Your task to perform on an android device: Do I have any events tomorrow? Image 0: 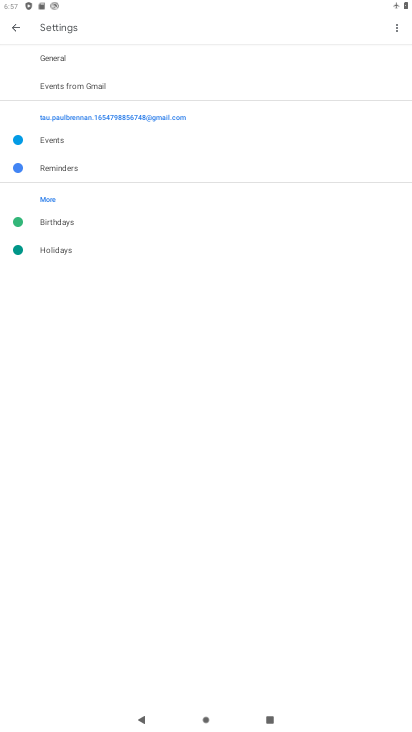
Step 0: press home button
Your task to perform on an android device: Do I have any events tomorrow? Image 1: 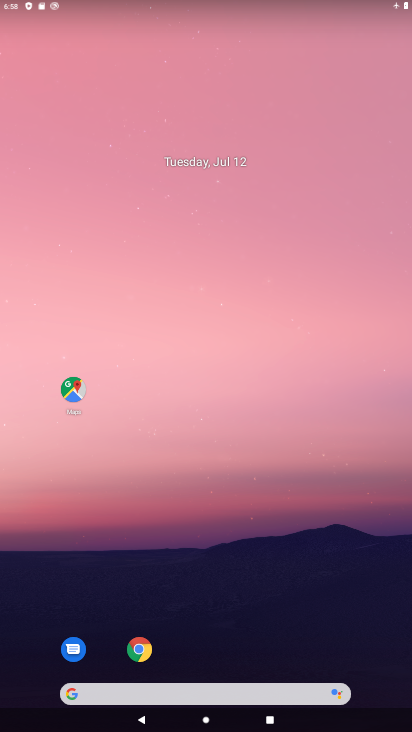
Step 1: drag from (222, 315) to (273, 20)
Your task to perform on an android device: Do I have any events tomorrow? Image 2: 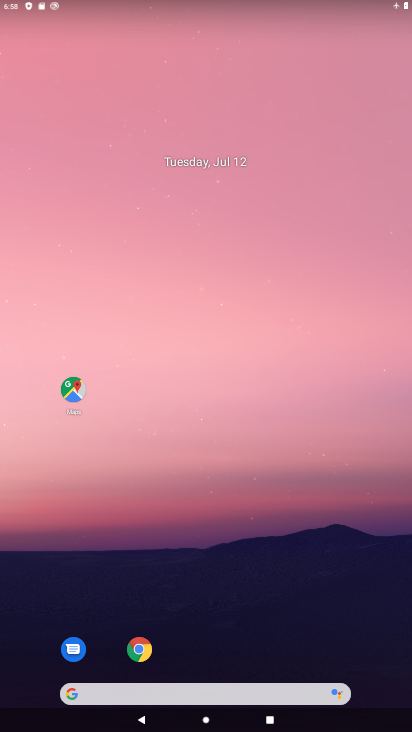
Step 2: drag from (196, 81) to (247, 40)
Your task to perform on an android device: Do I have any events tomorrow? Image 3: 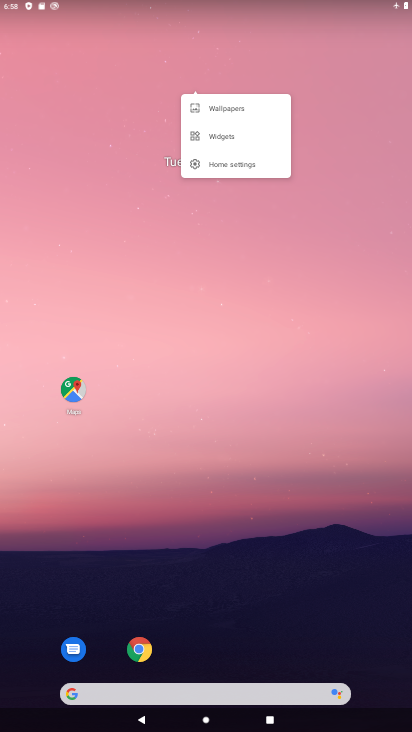
Step 3: drag from (281, 382) to (300, 153)
Your task to perform on an android device: Do I have any events tomorrow? Image 4: 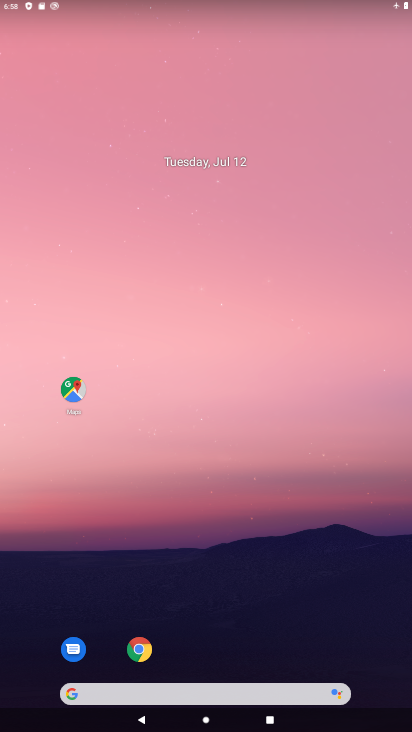
Step 4: drag from (187, 320) to (233, 24)
Your task to perform on an android device: Do I have any events tomorrow? Image 5: 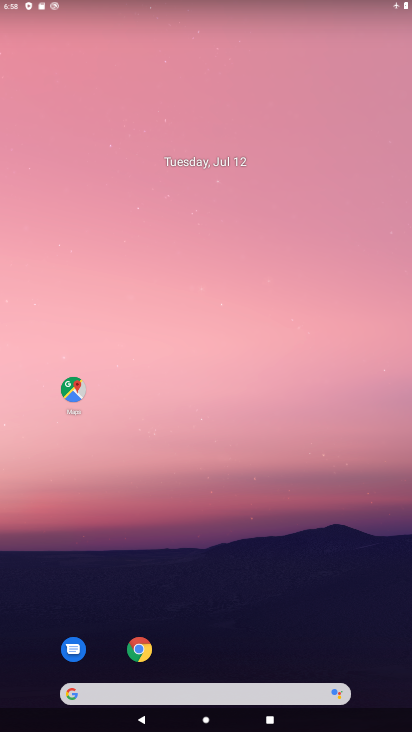
Step 5: drag from (201, 329) to (267, 11)
Your task to perform on an android device: Do I have any events tomorrow? Image 6: 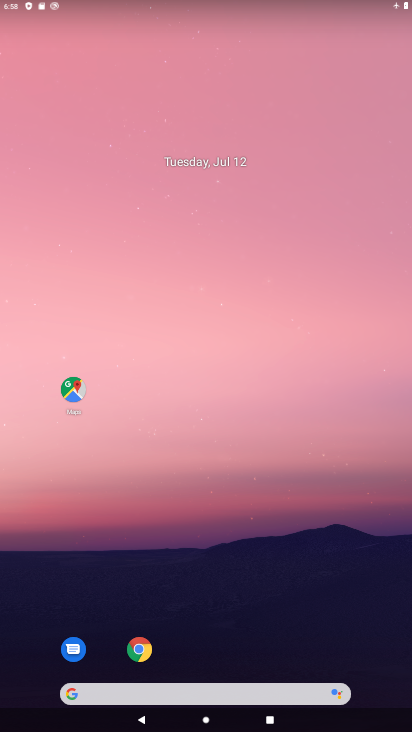
Step 6: drag from (189, 562) to (267, 0)
Your task to perform on an android device: Do I have any events tomorrow? Image 7: 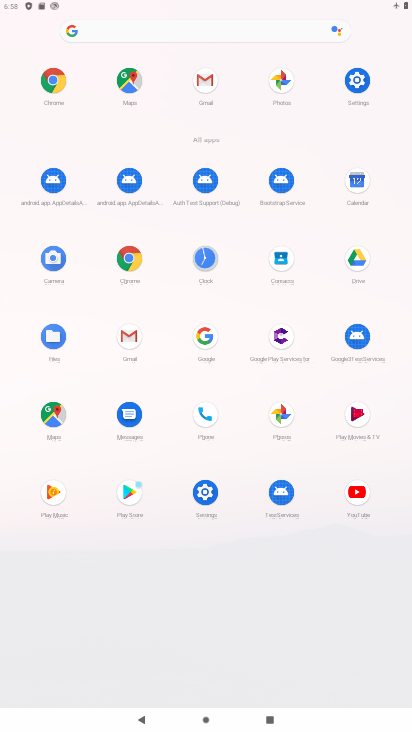
Step 7: click (355, 186)
Your task to perform on an android device: Do I have any events tomorrow? Image 8: 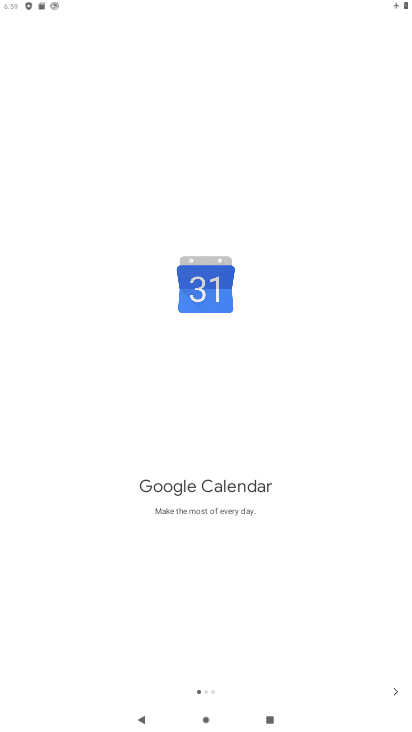
Step 8: click (397, 695)
Your task to perform on an android device: Do I have any events tomorrow? Image 9: 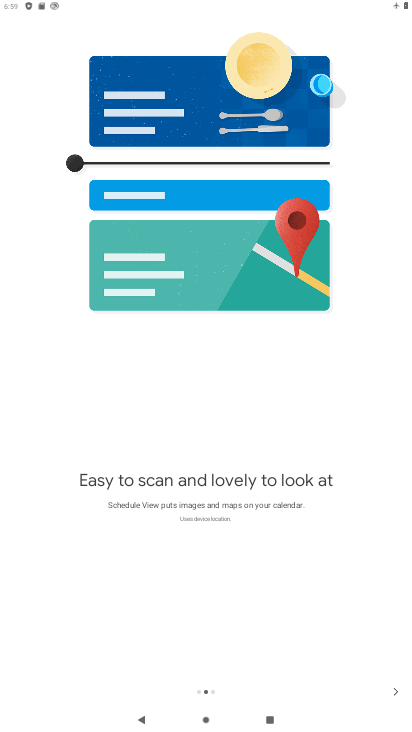
Step 9: click (397, 695)
Your task to perform on an android device: Do I have any events tomorrow? Image 10: 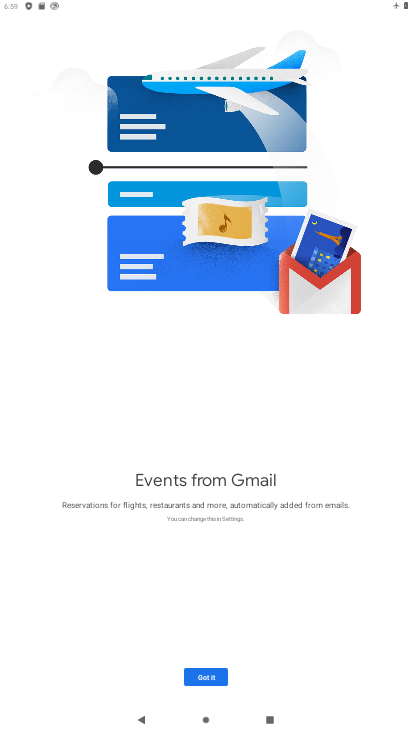
Step 10: click (207, 676)
Your task to perform on an android device: Do I have any events tomorrow? Image 11: 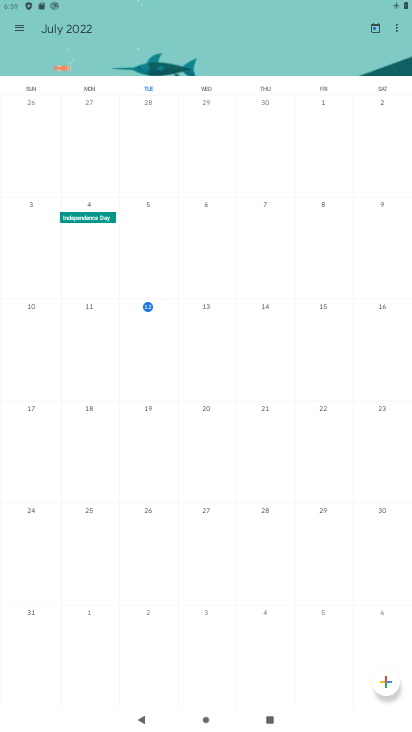
Step 11: task complete